Your task to perform on an android device: Go to CNN.com Image 0: 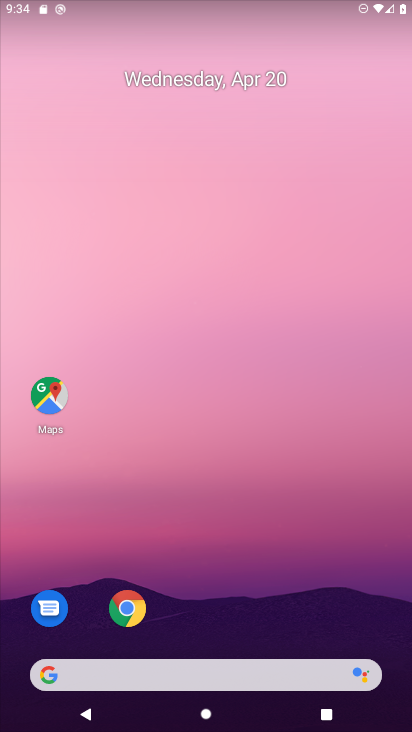
Step 0: drag from (192, 579) to (281, 59)
Your task to perform on an android device: Go to CNN.com Image 1: 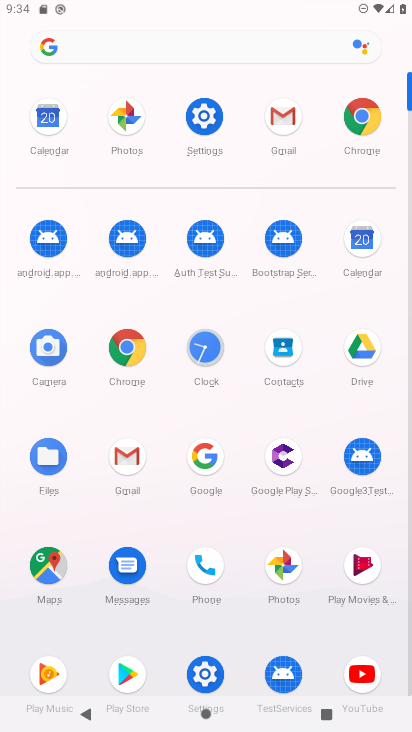
Step 1: click (211, 119)
Your task to perform on an android device: Go to CNN.com Image 2: 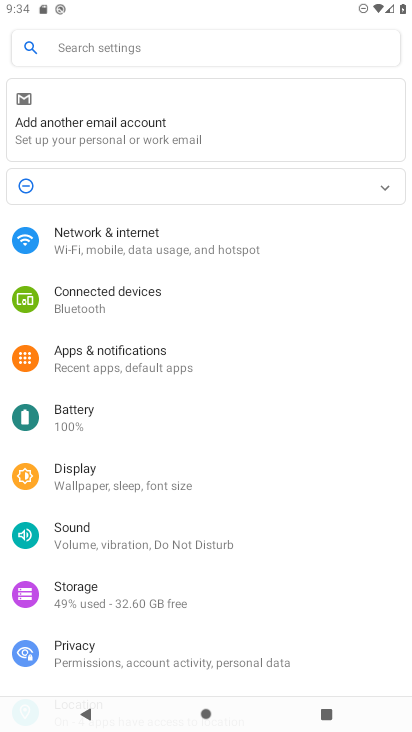
Step 2: click (135, 252)
Your task to perform on an android device: Go to CNN.com Image 3: 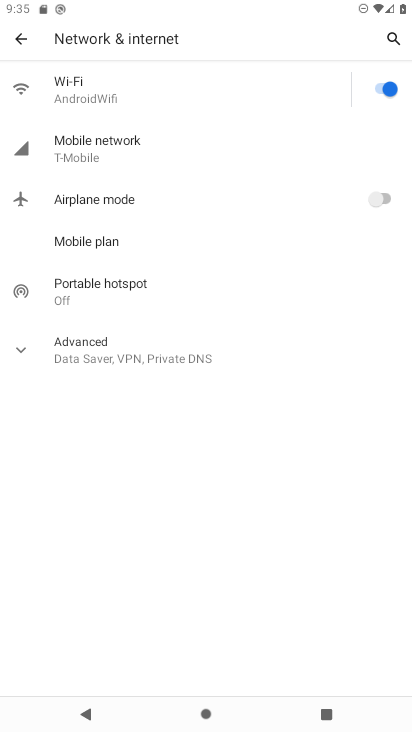
Step 3: click (376, 85)
Your task to perform on an android device: Go to CNN.com Image 4: 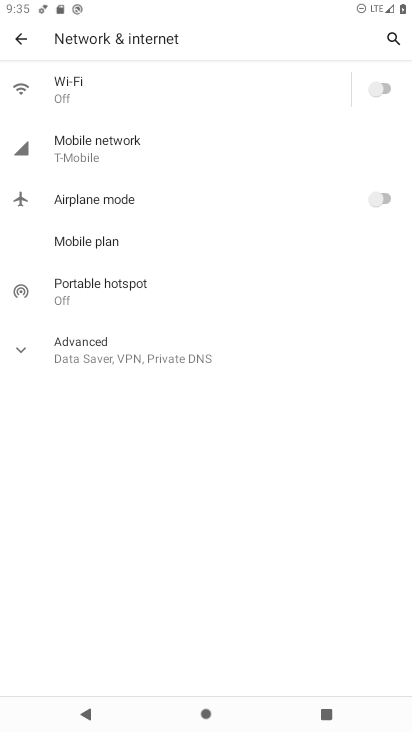
Step 4: task complete